Your task to perform on an android device: set default search engine in the chrome app Image 0: 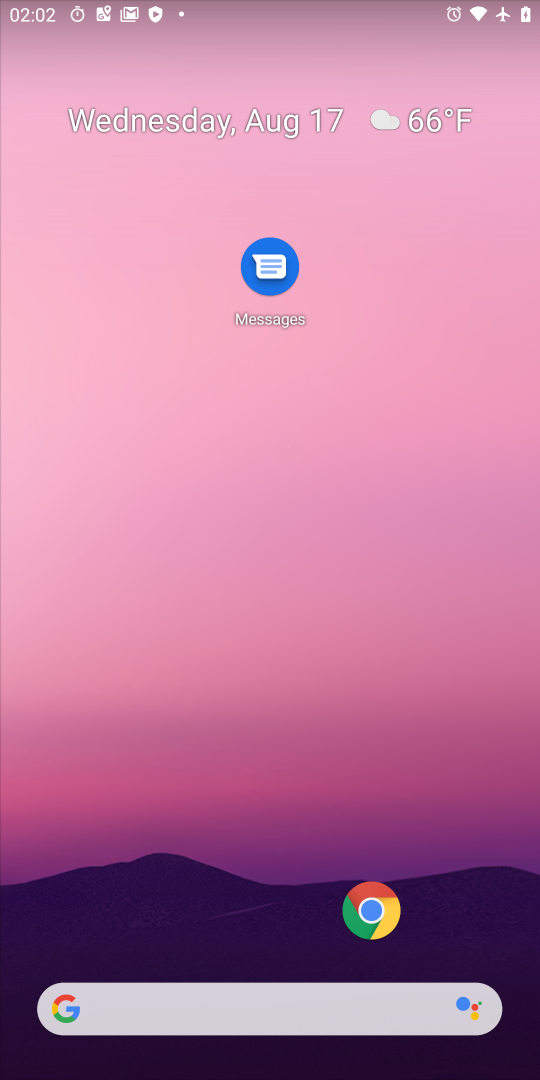
Step 0: drag from (192, 888) to (285, 96)
Your task to perform on an android device: set default search engine in the chrome app Image 1: 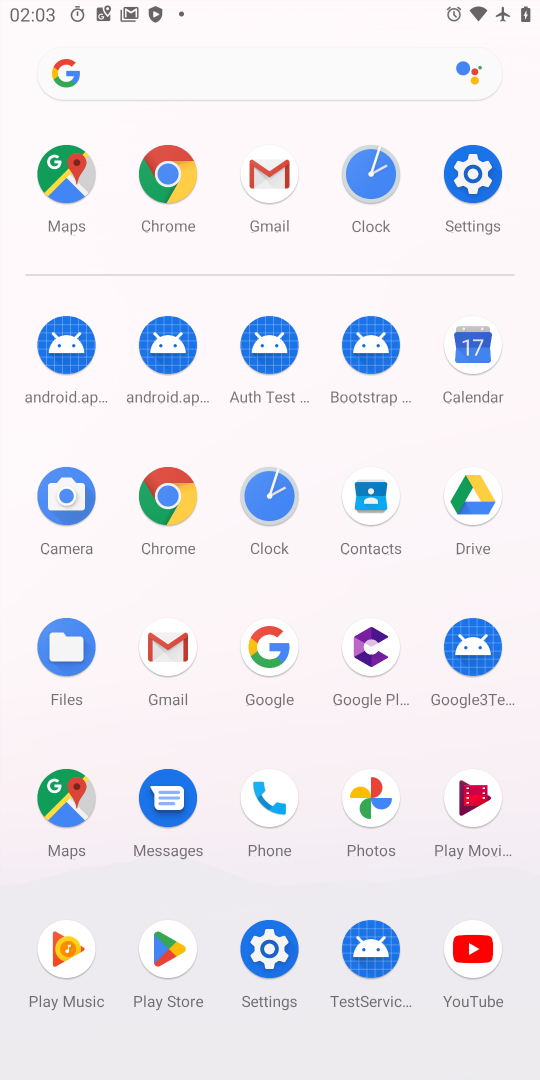
Step 1: click (165, 503)
Your task to perform on an android device: set default search engine in the chrome app Image 2: 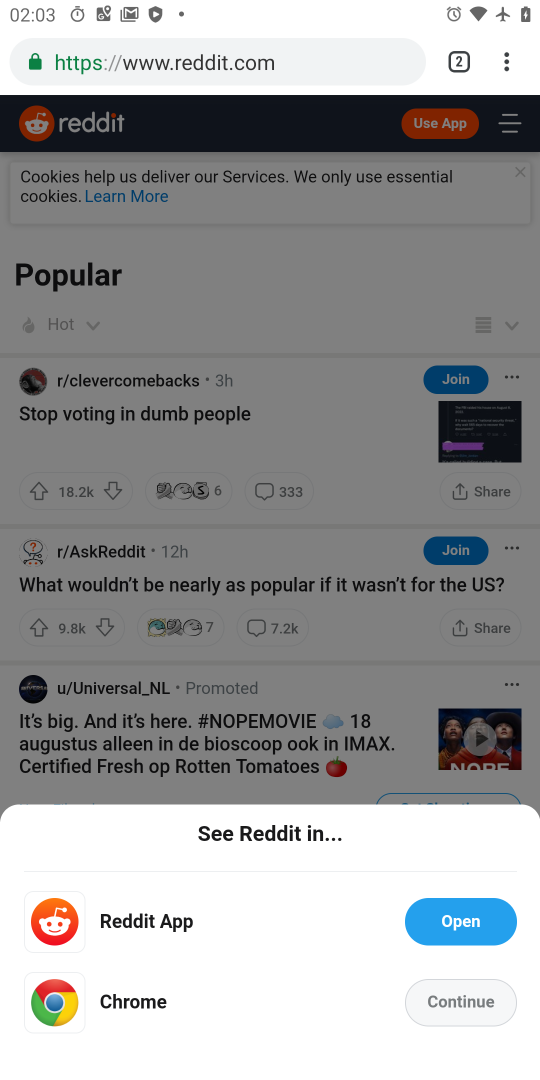
Step 2: drag from (514, 58) to (269, 817)
Your task to perform on an android device: set default search engine in the chrome app Image 3: 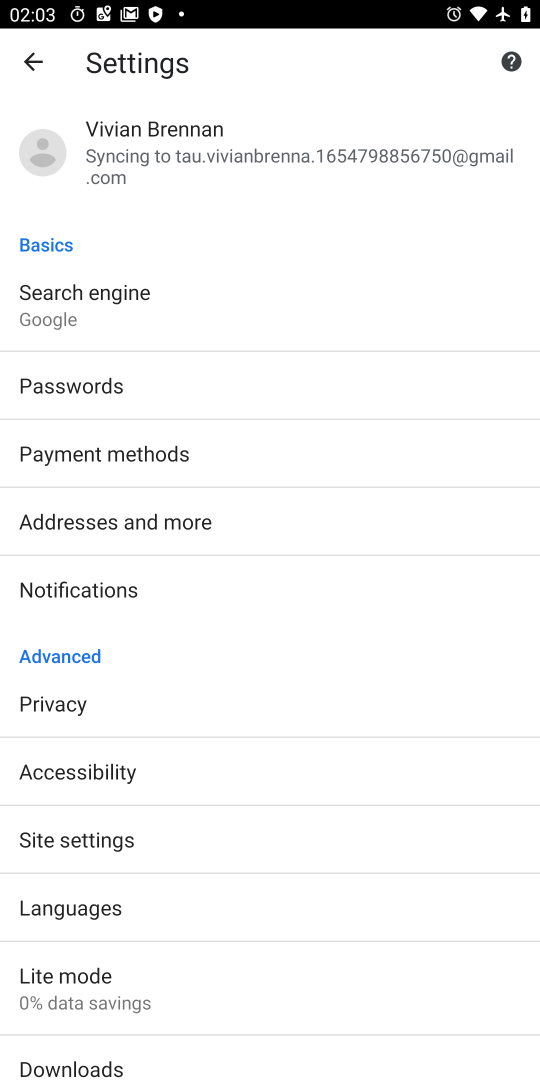
Step 3: click (203, 304)
Your task to perform on an android device: set default search engine in the chrome app Image 4: 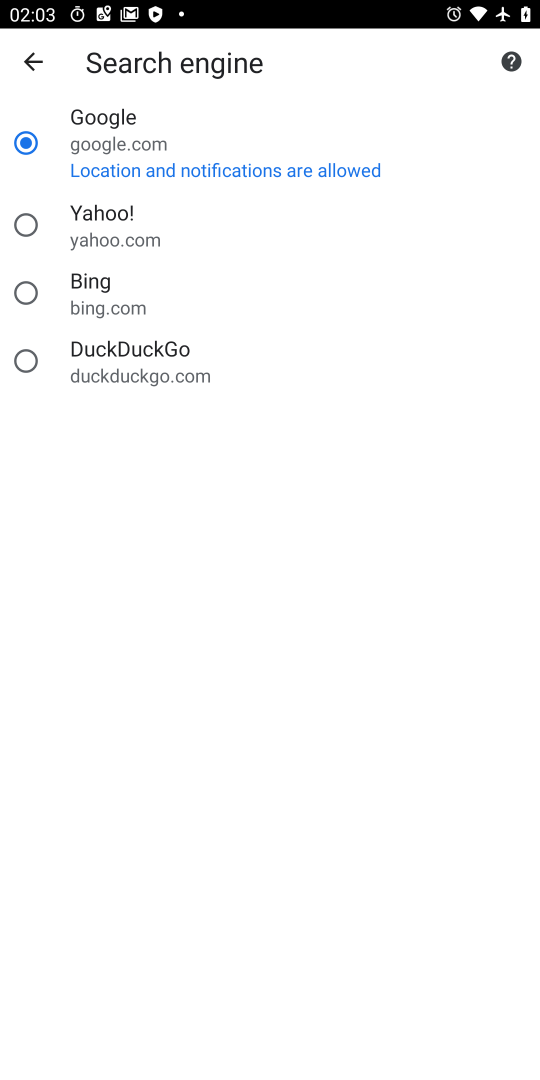
Step 4: task complete